Your task to perform on an android device: open chrome privacy settings Image 0: 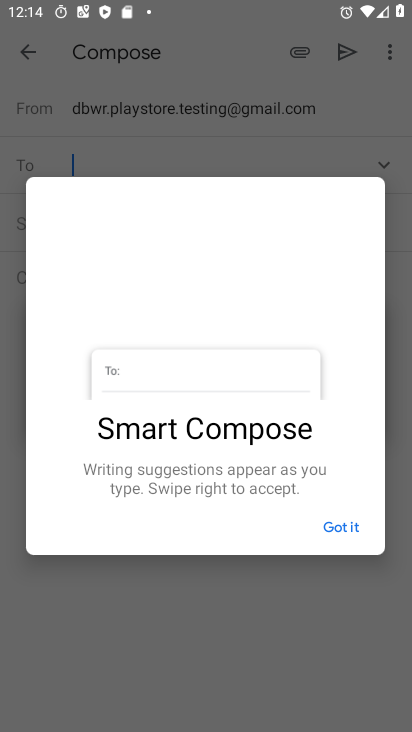
Step 0: press home button
Your task to perform on an android device: open chrome privacy settings Image 1: 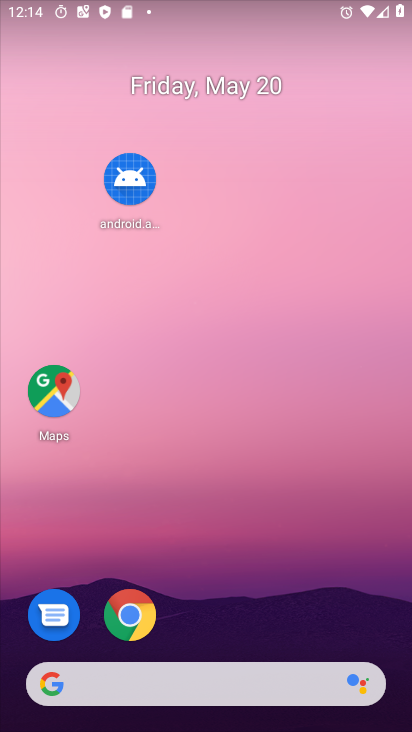
Step 1: click (142, 606)
Your task to perform on an android device: open chrome privacy settings Image 2: 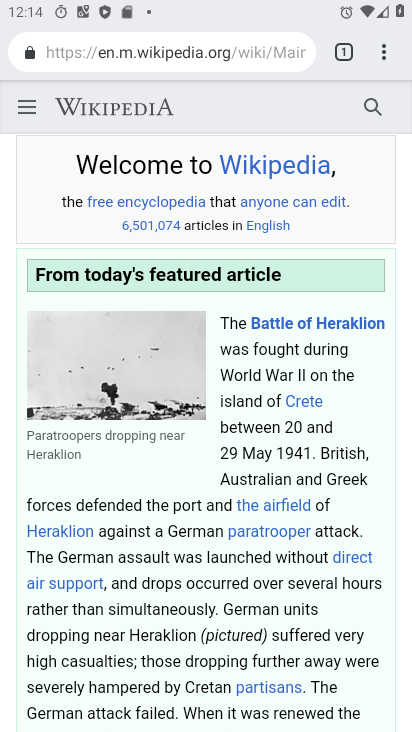
Step 2: click (387, 54)
Your task to perform on an android device: open chrome privacy settings Image 3: 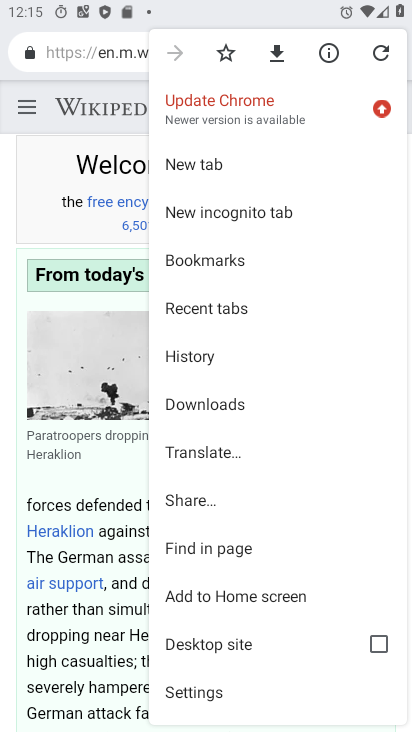
Step 3: click (231, 691)
Your task to perform on an android device: open chrome privacy settings Image 4: 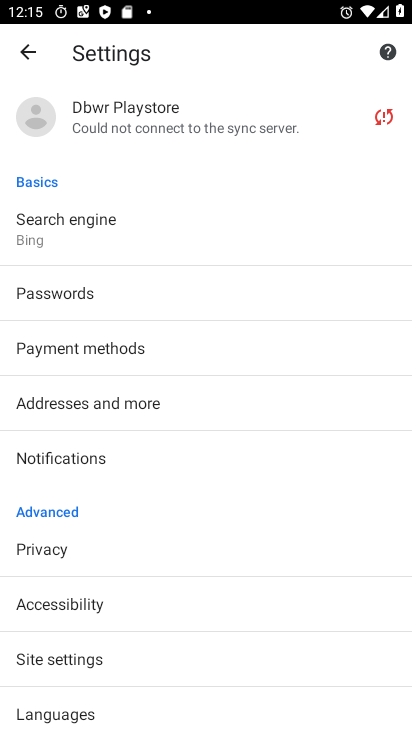
Step 4: click (126, 555)
Your task to perform on an android device: open chrome privacy settings Image 5: 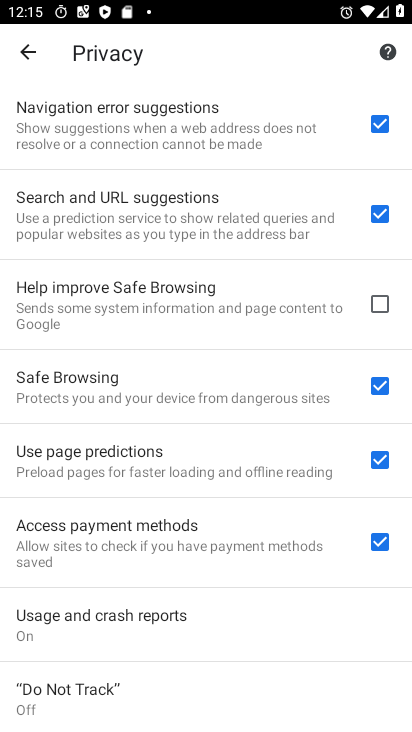
Step 5: task complete